Your task to perform on an android device: see tabs open on other devices in the chrome app Image 0: 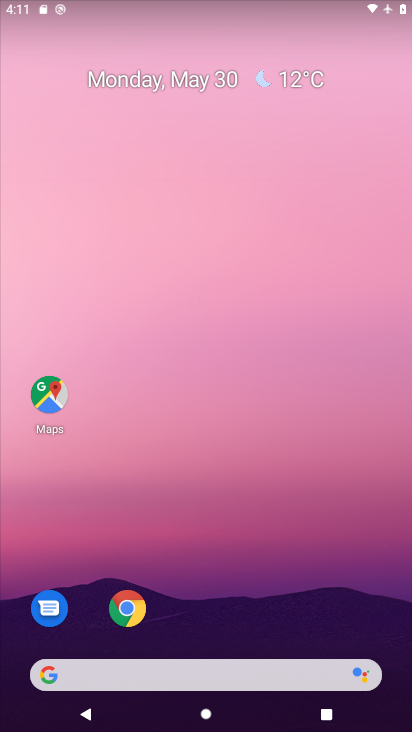
Step 0: click (140, 603)
Your task to perform on an android device: see tabs open on other devices in the chrome app Image 1: 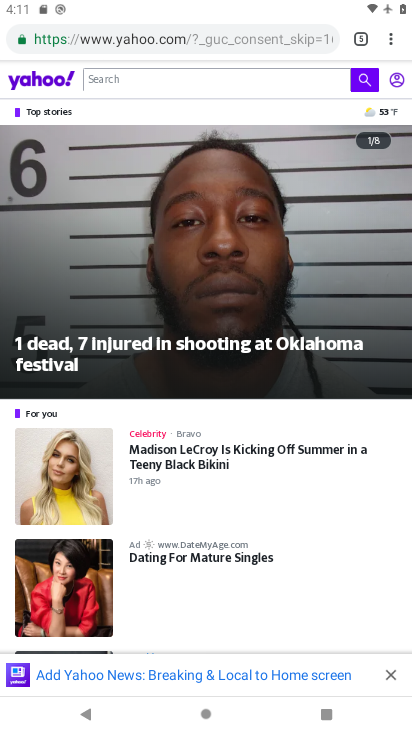
Step 1: click (392, 43)
Your task to perform on an android device: see tabs open on other devices in the chrome app Image 2: 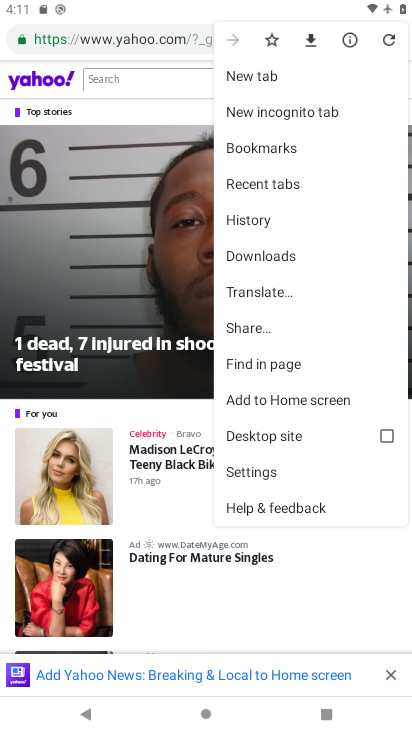
Step 2: click (275, 177)
Your task to perform on an android device: see tabs open on other devices in the chrome app Image 3: 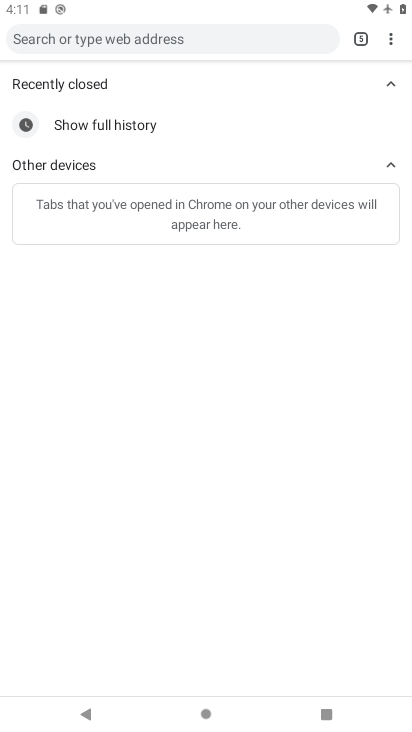
Step 3: task complete